Your task to perform on an android device: Google the capital of Peru Image 0: 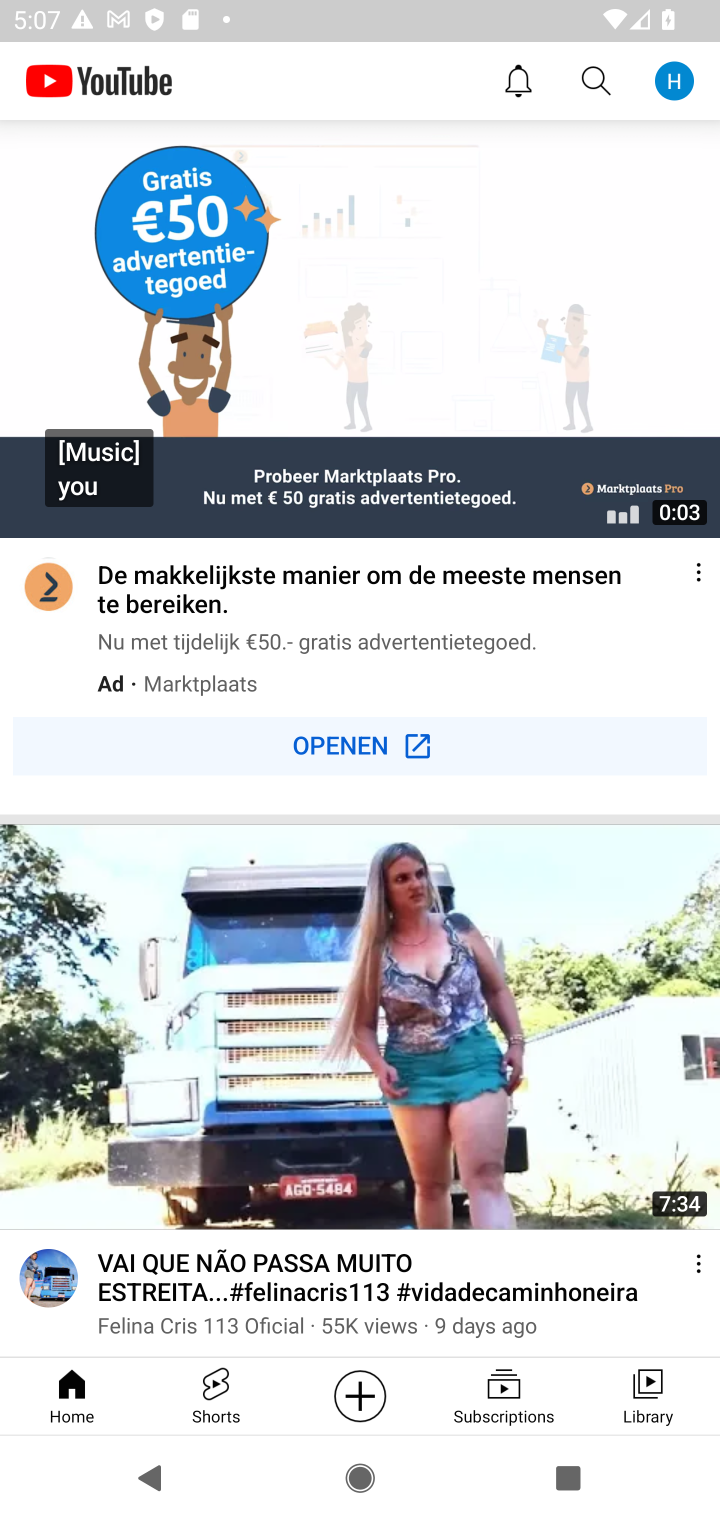
Step 0: press home button
Your task to perform on an android device: Google the capital of Peru Image 1: 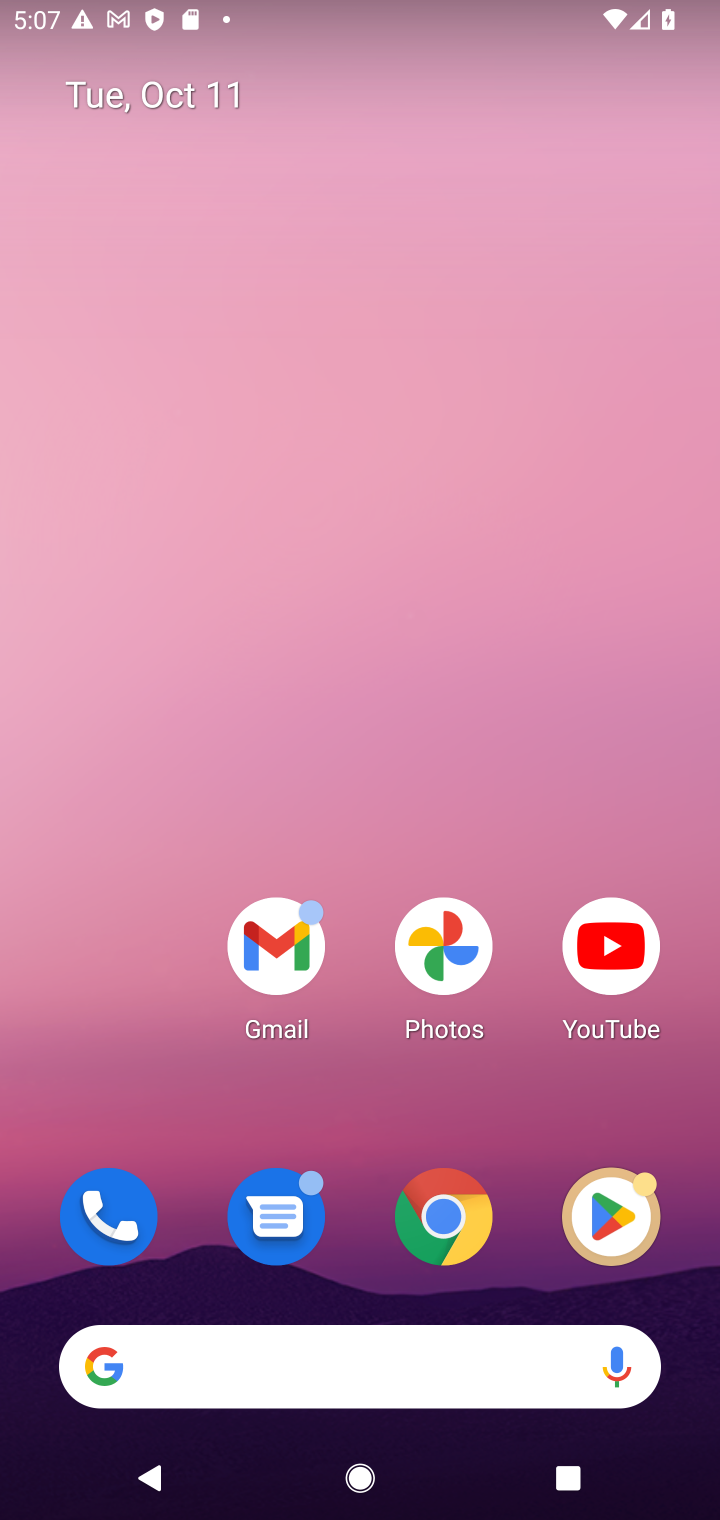
Step 1: click (447, 1221)
Your task to perform on an android device: Google the capital of Peru Image 2: 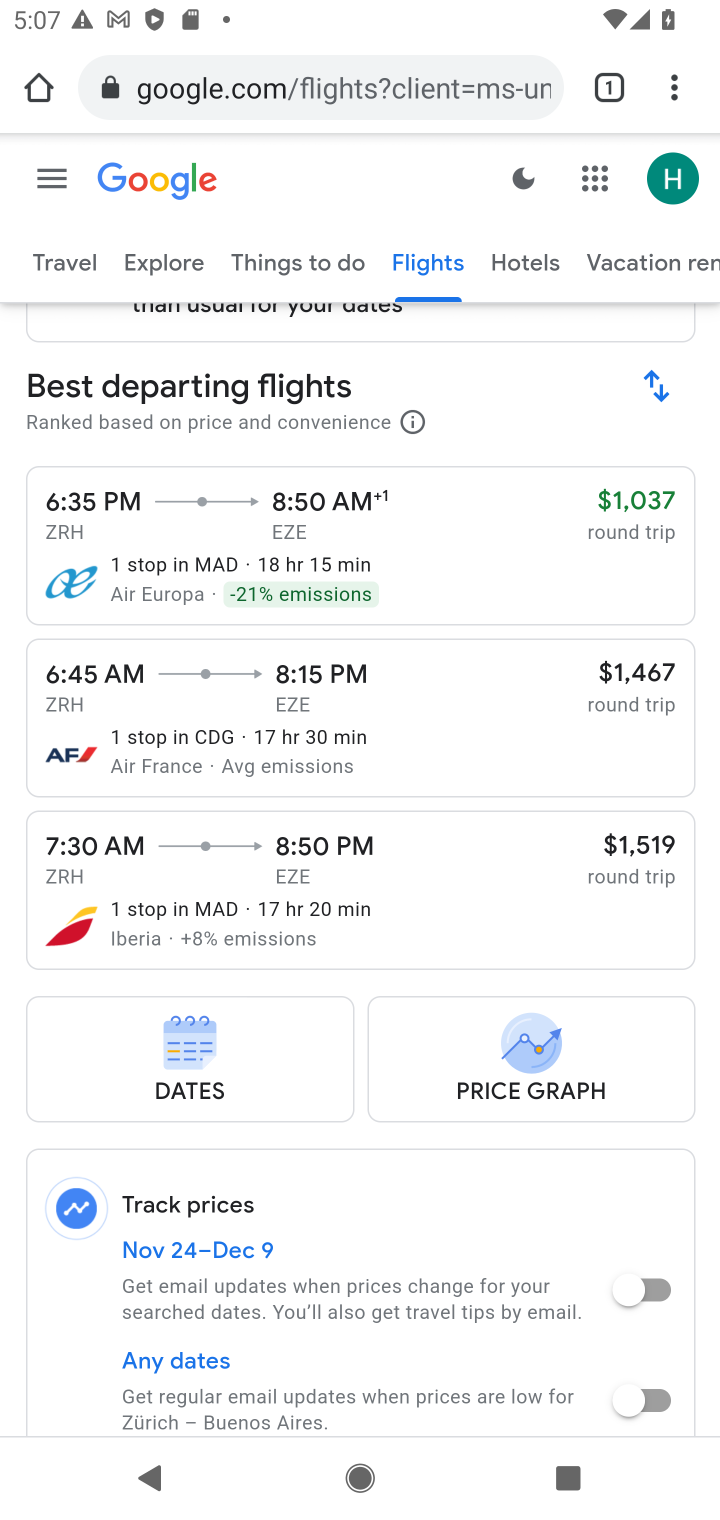
Step 2: click (373, 74)
Your task to perform on an android device: Google the capital of Peru Image 3: 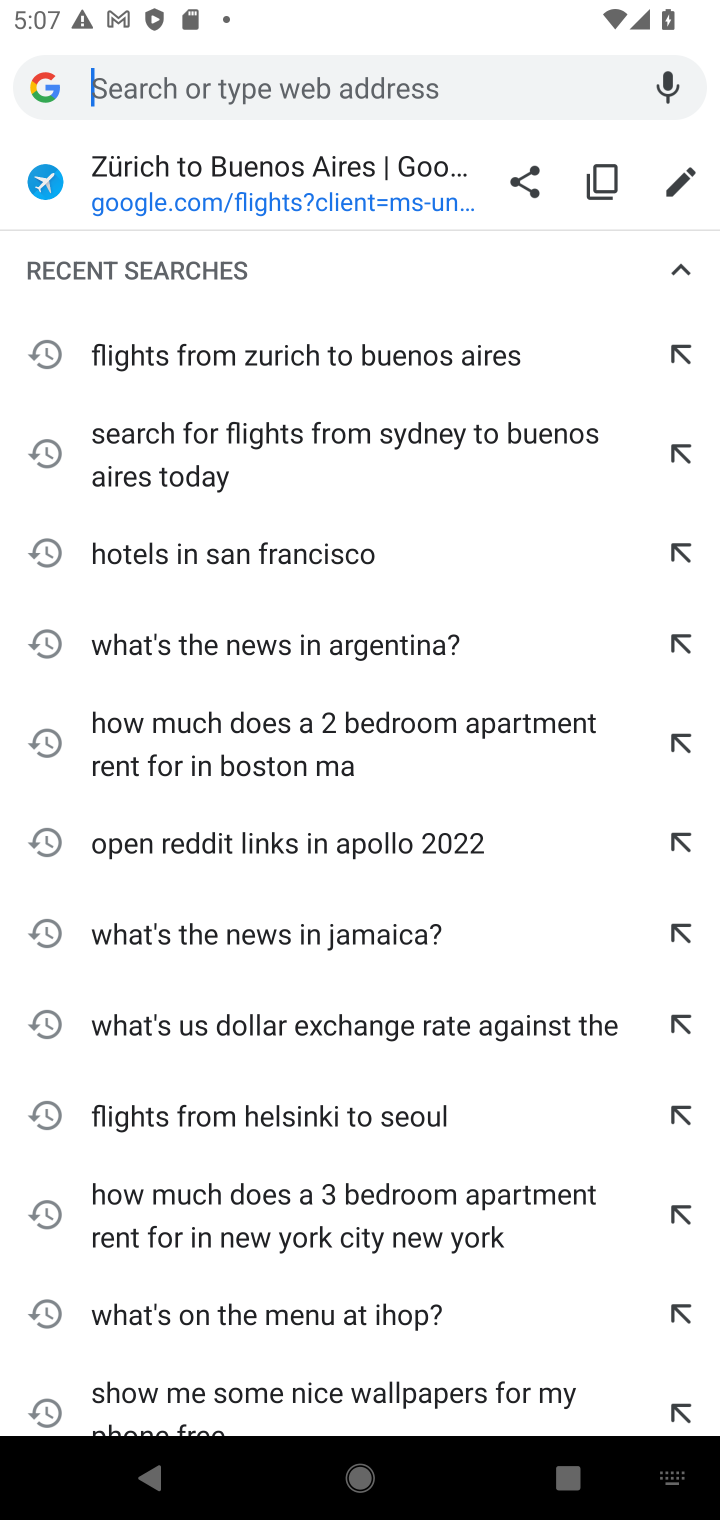
Step 3: type "Capital of peru"
Your task to perform on an android device: Google the capital of Peru Image 4: 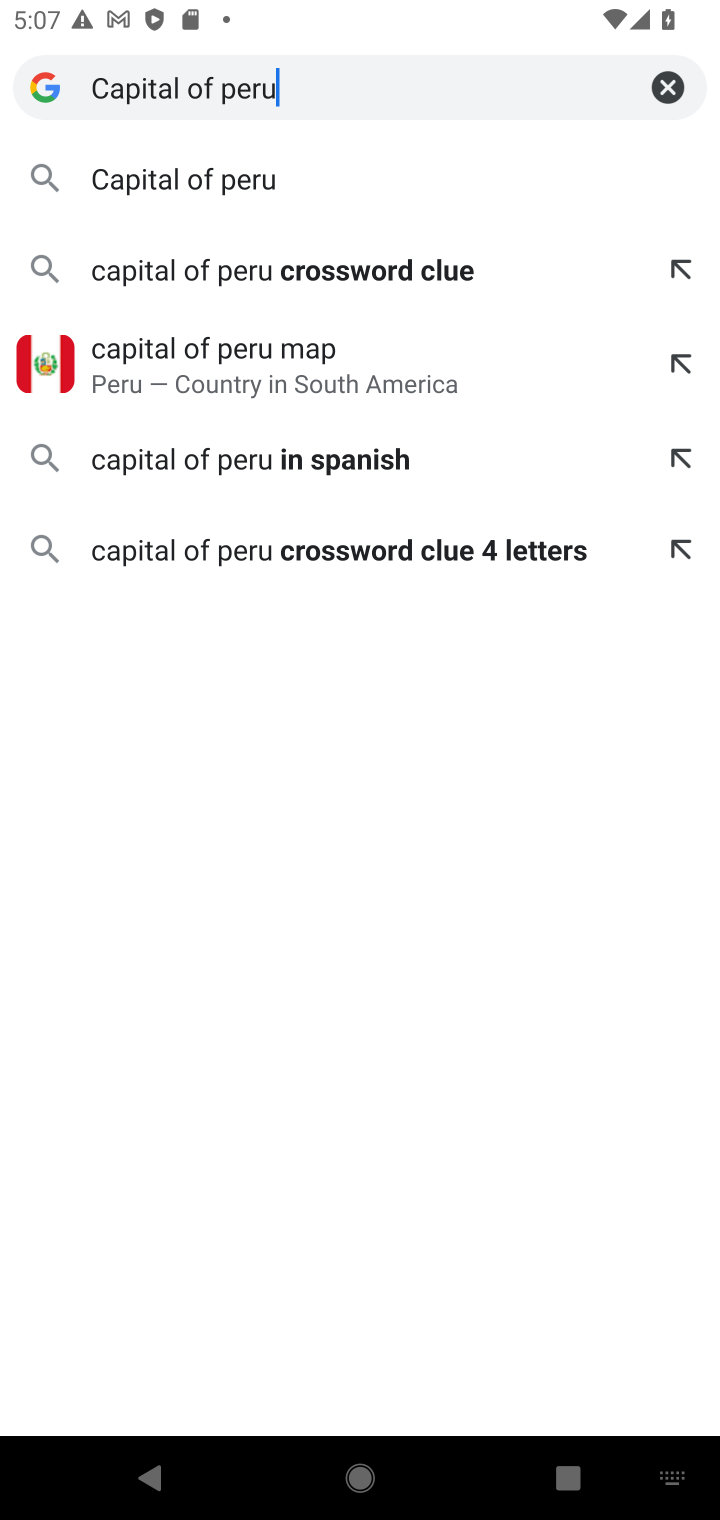
Step 4: click (200, 190)
Your task to perform on an android device: Google the capital of Peru Image 5: 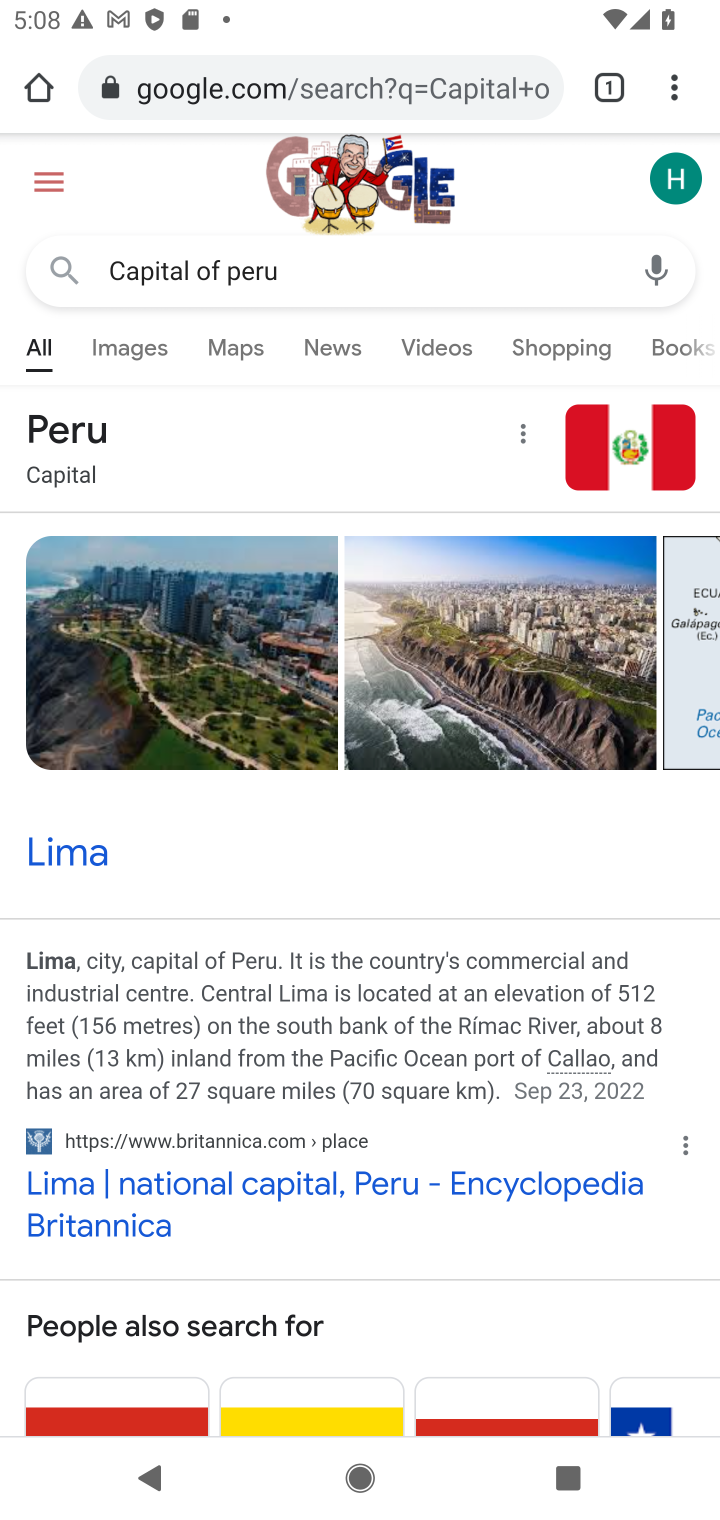
Step 5: task complete